Your task to perform on an android device: delete the emails in spam in the gmail app Image 0: 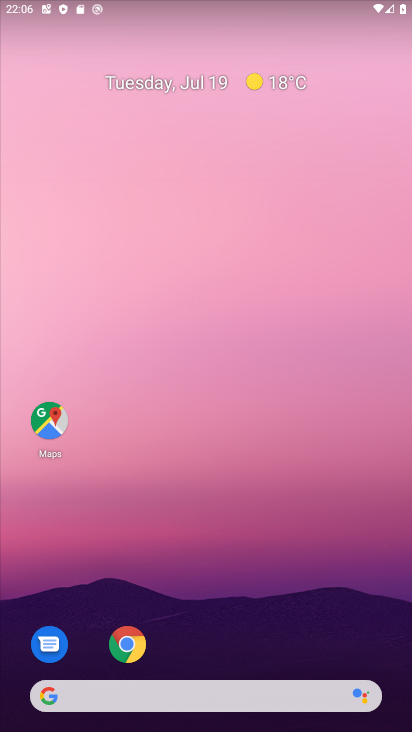
Step 0: drag from (240, 699) to (240, 197)
Your task to perform on an android device: delete the emails in spam in the gmail app Image 1: 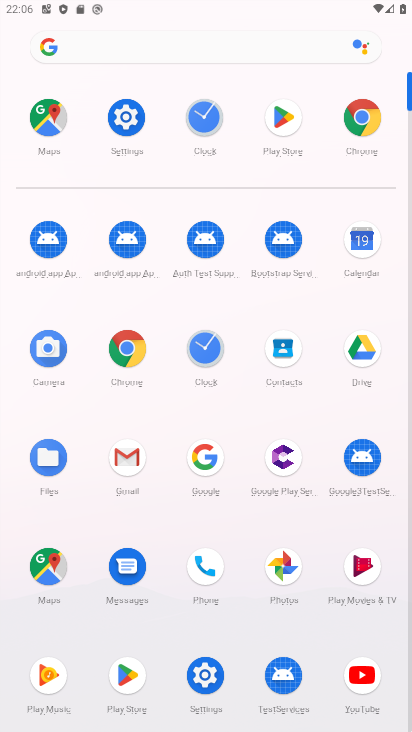
Step 1: click (116, 458)
Your task to perform on an android device: delete the emails in spam in the gmail app Image 2: 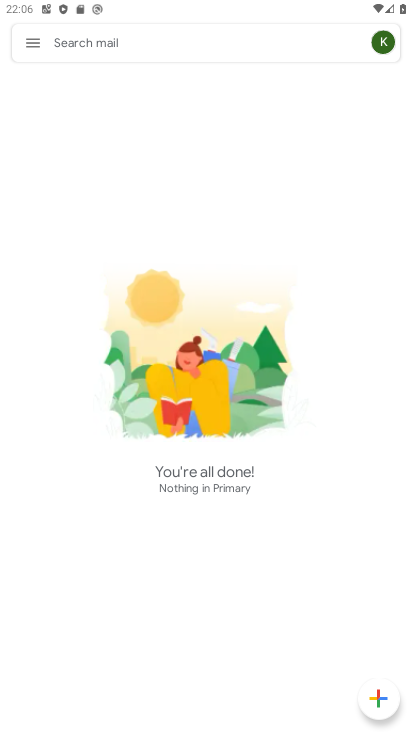
Step 2: click (37, 41)
Your task to perform on an android device: delete the emails in spam in the gmail app Image 3: 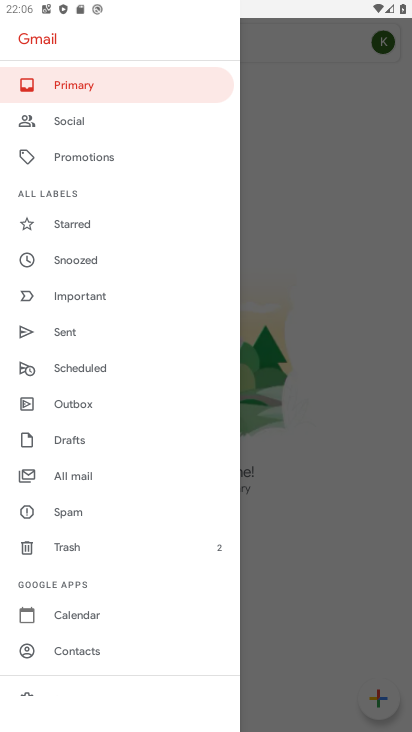
Step 3: click (67, 512)
Your task to perform on an android device: delete the emails in spam in the gmail app Image 4: 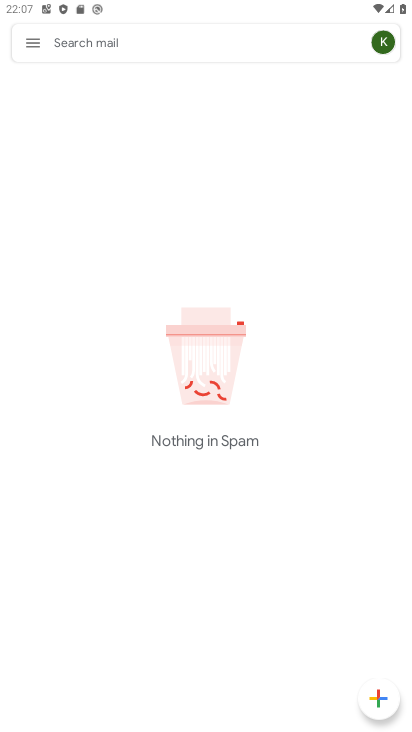
Step 4: task complete